Your task to perform on an android device: delete a single message in the gmail app Image 0: 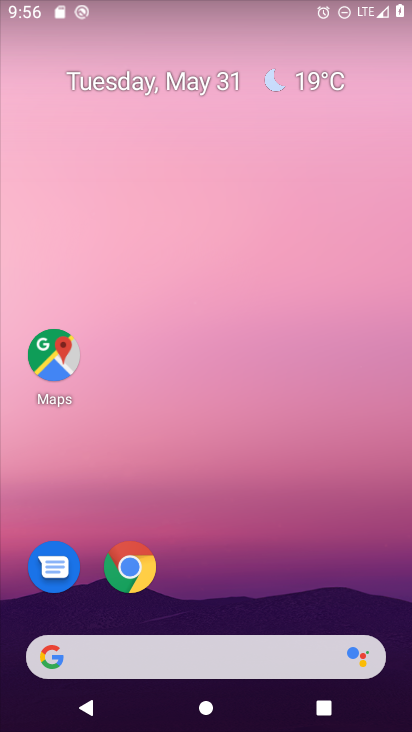
Step 0: drag from (218, 588) to (218, 199)
Your task to perform on an android device: delete a single message in the gmail app Image 1: 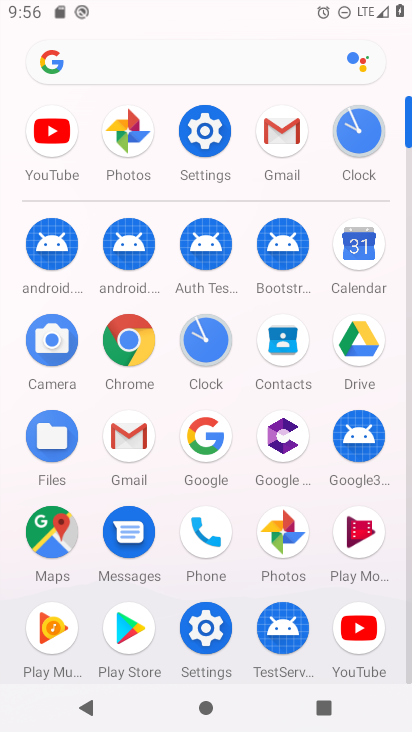
Step 1: click (282, 133)
Your task to perform on an android device: delete a single message in the gmail app Image 2: 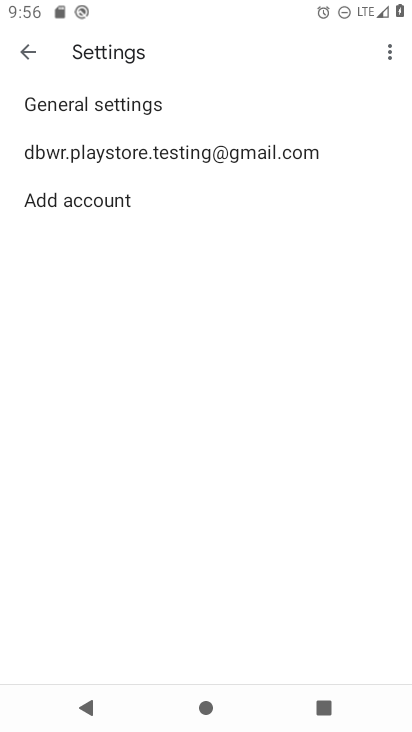
Step 2: click (30, 59)
Your task to perform on an android device: delete a single message in the gmail app Image 3: 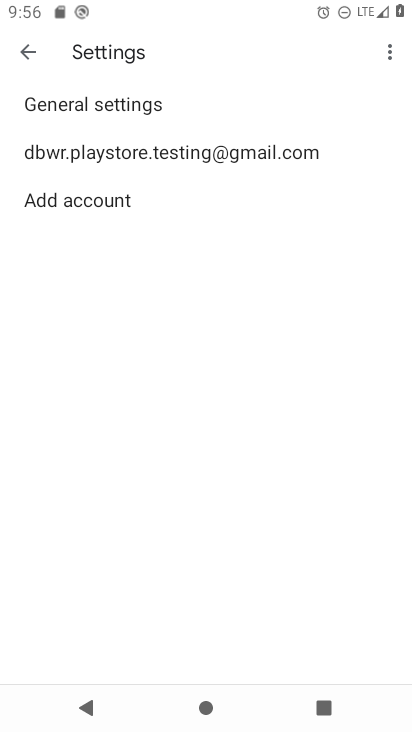
Step 3: click (27, 50)
Your task to perform on an android device: delete a single message in the gmail app Image 4: 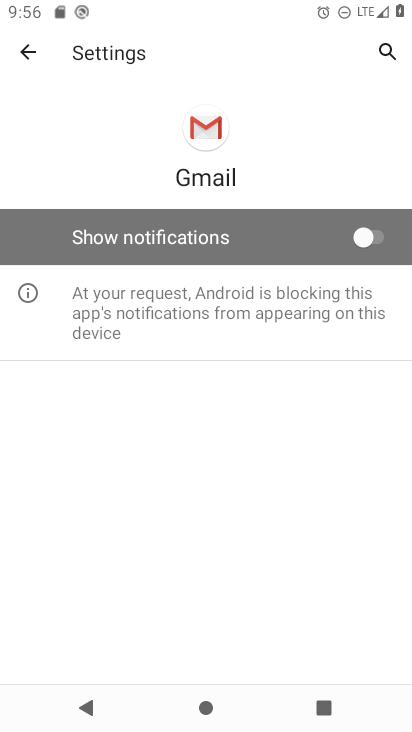
Step 4: click (24, 57)
Your task to perform on an android device: delete a single message in the gmail app Image 5: 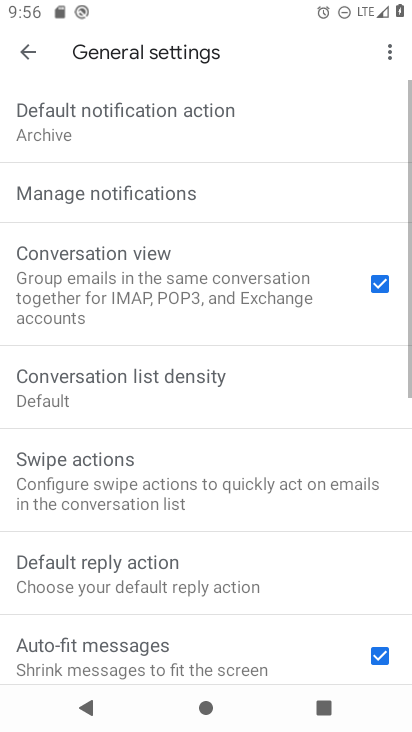
Step 5: click (24, 57)
Your task to perform on an android device: delete a single message in the gmail app Image 6: 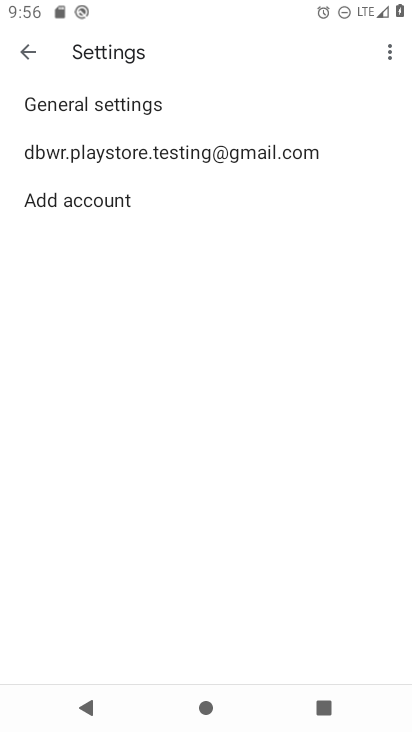
Step 6: click (24, 57)
Your task to perform on an android device: delete a single message in the gmail app Image 7: 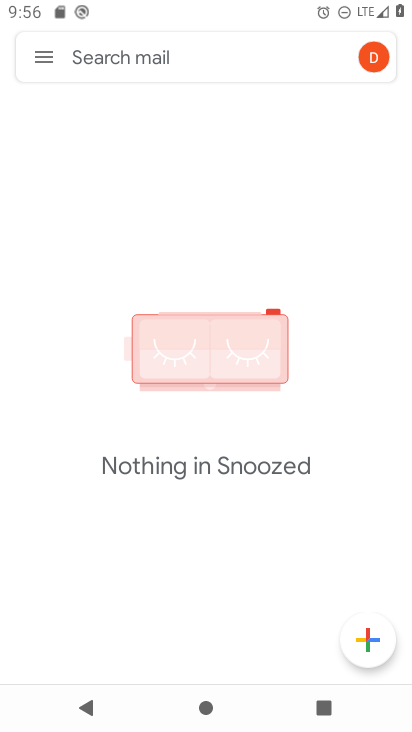
Step 7: click (31, 56)
Your task to perform on an android device: delete a single message in the gmail app Image 8: 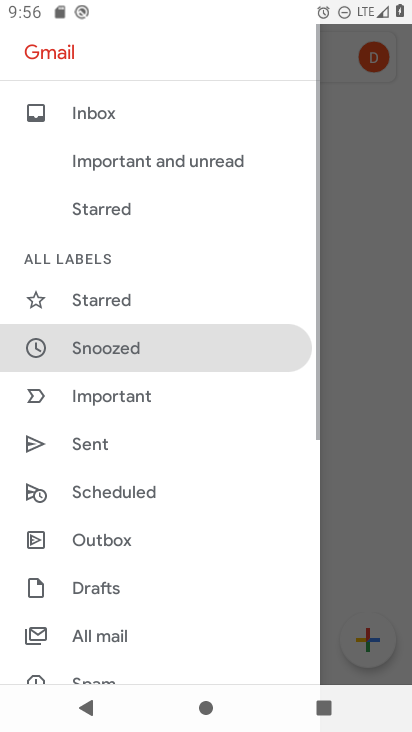
Step 8: click (61, 113)
Your task to perform on an android device: delete a single message in the gmail app Image 9: 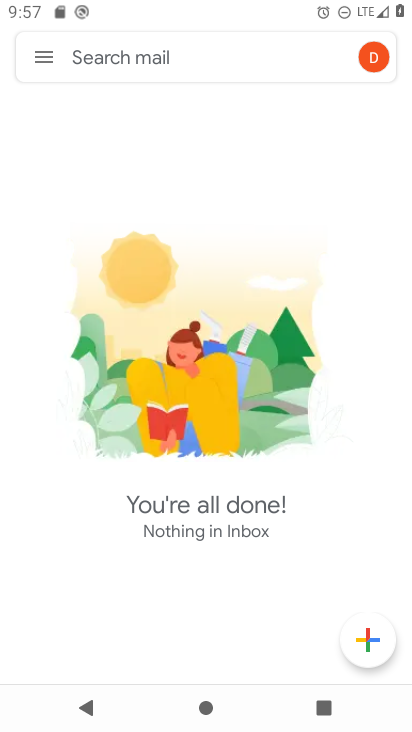
Step 9: task complete